Your task to perform on an android device: turn off location history Image 0: 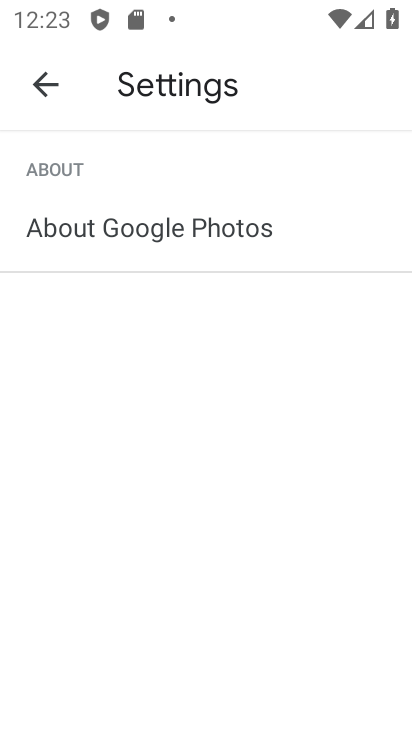
Step 0: press home button
Your task to perform on an android device: turn off location history Image 1: 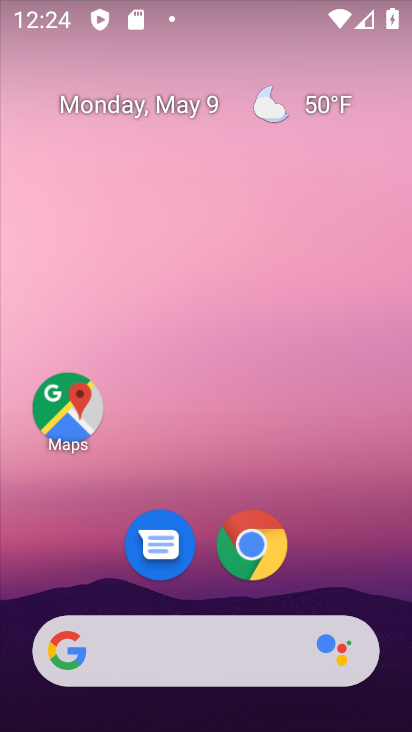
Step 1: drag from (198, 585) to (207, 204)
Your task to perform on an android device: turn off location history Image 2: 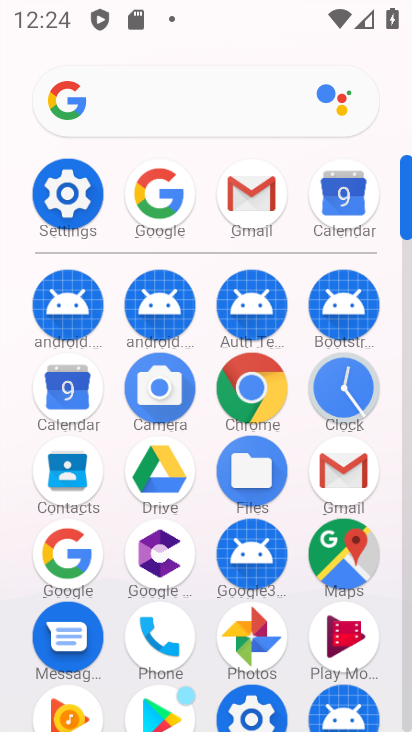
Step 2: click (58, 193)
Your task to perform on an android device: turn off location history Image 3: 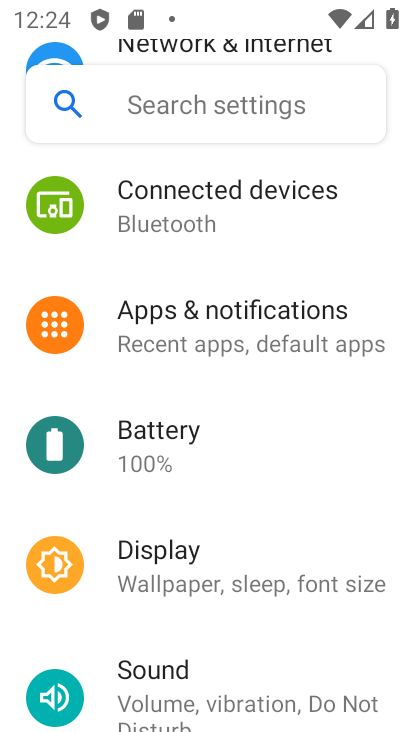
Step 3: drag from (245, 659) to (226, 374)
Your task to perform on an android device: turn off location history Image 4: 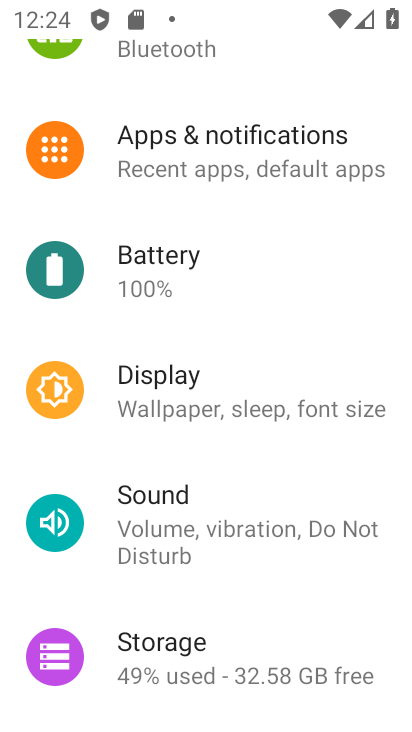
Step 4: drag from (222, 605) to (228, 315)
Your task to perform on an android device: turn off location history Image 5: 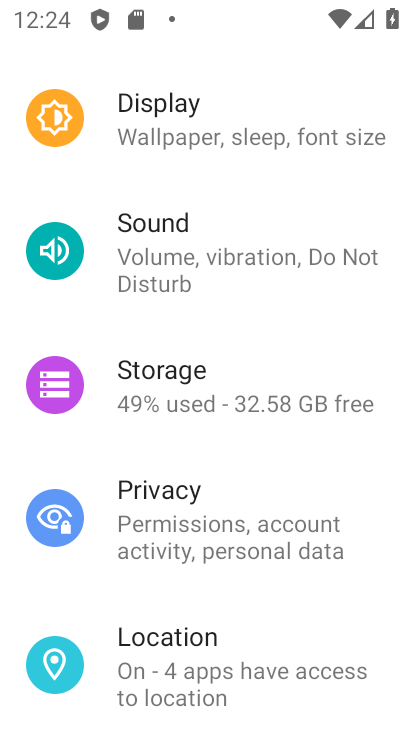
Step 5: click (208, 645)
Your task to perform on an android device: turn off location history Image 6: 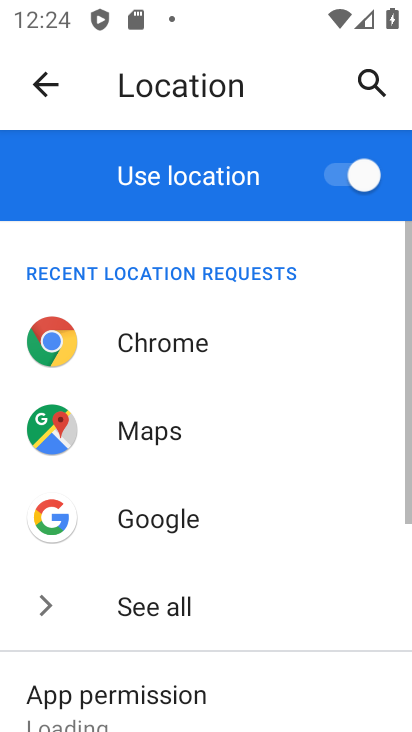
Step 6: drag from (197, 619) to (239, 309)
Your task to perform on an android device: turn off location history Image 7: 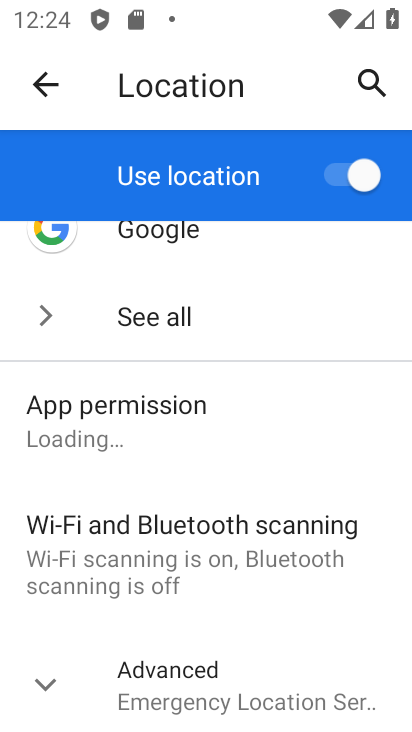
Step 7: drag from (236, 578) to (236, 419)
Your task to perform on an android device: turn off location history Image 8: 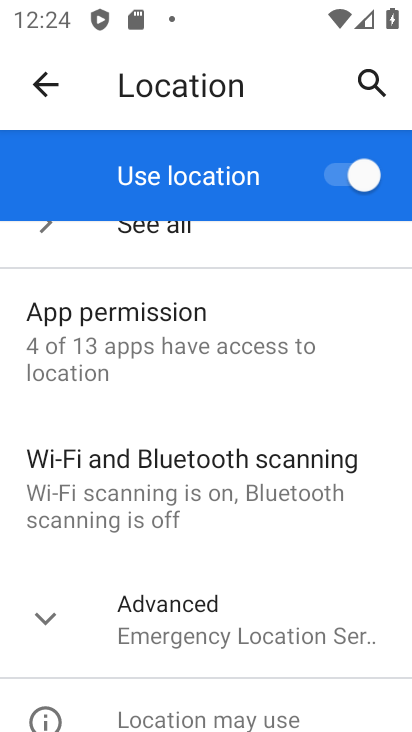
Step 8: click (172, 583)
Your task to perform on an android device: turn off location history Image 9: 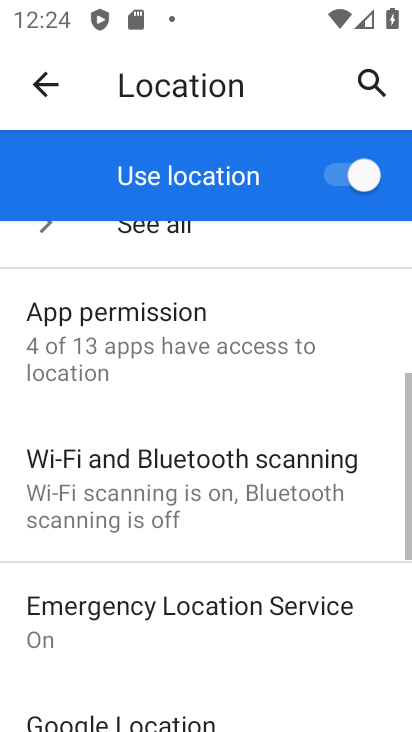
Step 9: drag from (229, 627) to (255, 325)
Your task to perform on an android device: turn off location history Image 10: 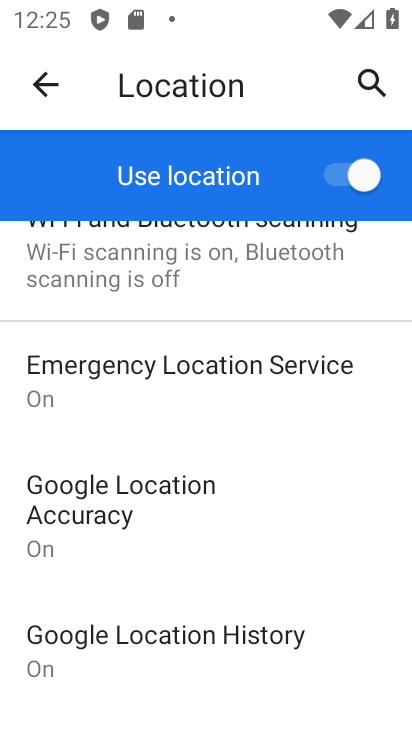
Step 10: click (231, 649)
Your task to perform on an android device: turn off location history Image 11: 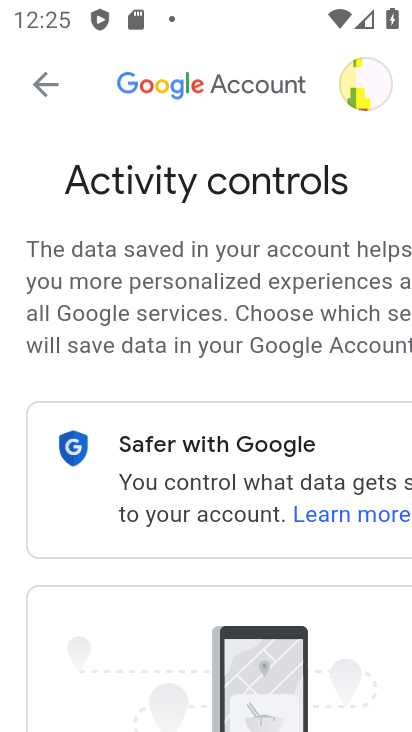
Step 11: task complete